Your task to perform on an android device: stop showing notifications on the lock screen Image 0: 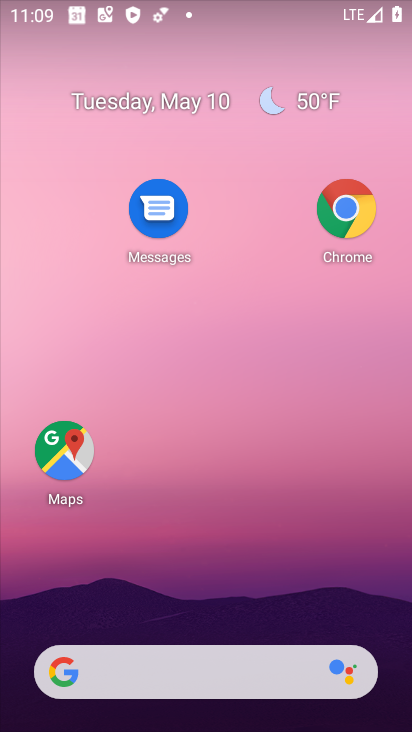
Step 0: drag from (219, 633) to (178, 55)
Your task to perform on an android device: stop showing notifications on the lock screen Image 1: 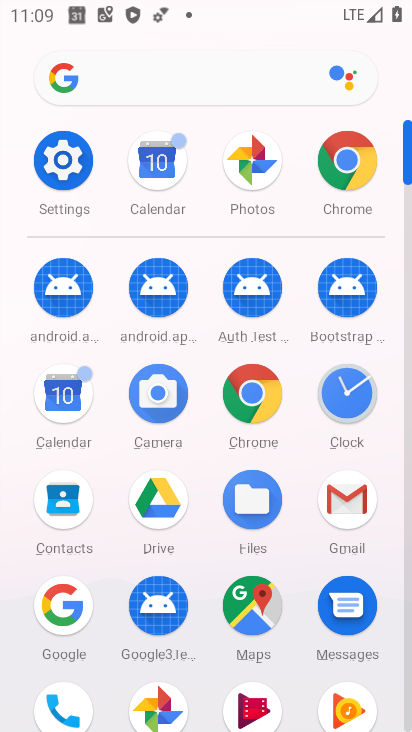
Step 1: click (69, 164)
Your task to perform on an android device: stop showing notifications on the lock screen Image 2: 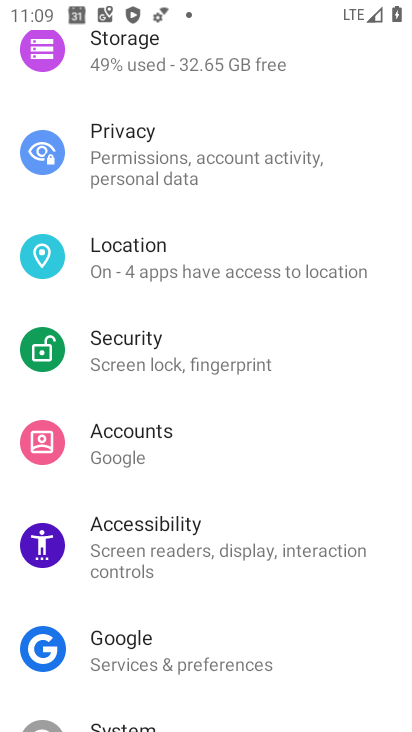
Step 2: drag from (145, 176) to (179, 719)
Your task to perform on an android device: stop showing notifications on the lock screen Image 3: 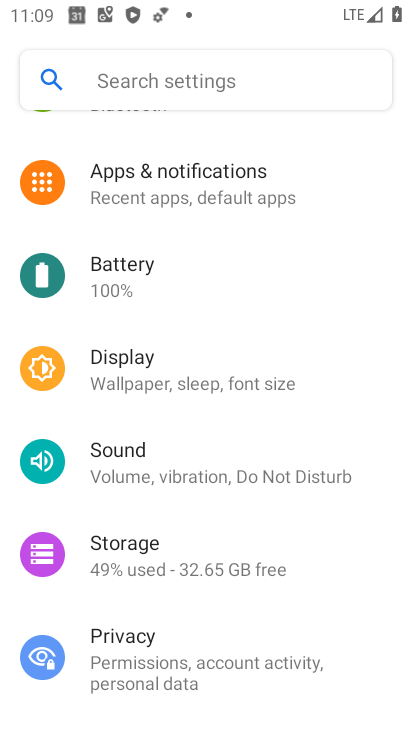
Step 3: click (208, 166)
Your task to perform on an android device: stop showing notifications on the lock screen Image 4: 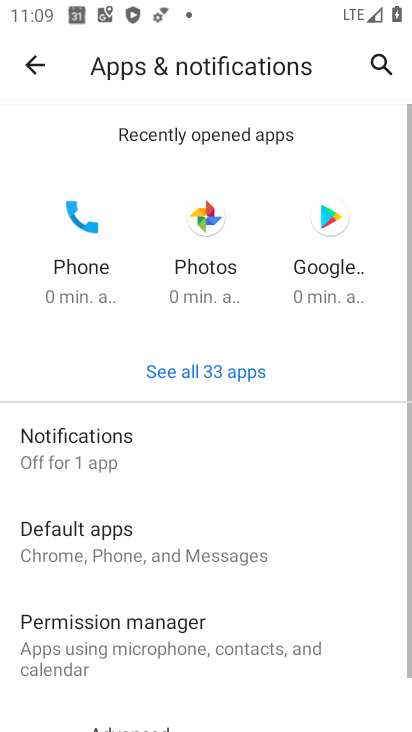
Step 4: click (191, 452)
Your task to perform on an android device: stop showing notifications on the lock screen Image 5: 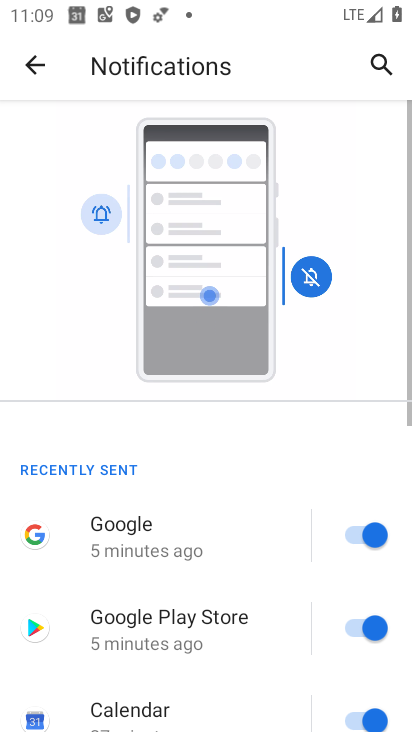
Step 5: drag from (229, 621) to (269, 110)
Your task to perform on an android device: stop showing notifications on the lock screen Image 6: 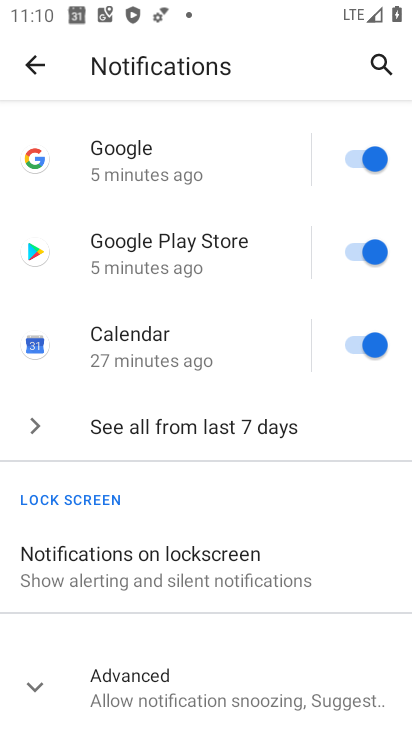
Step 6: click (199, 552)
Your task to perform on an android device: stop showing notifications on the lock screen Image 7: 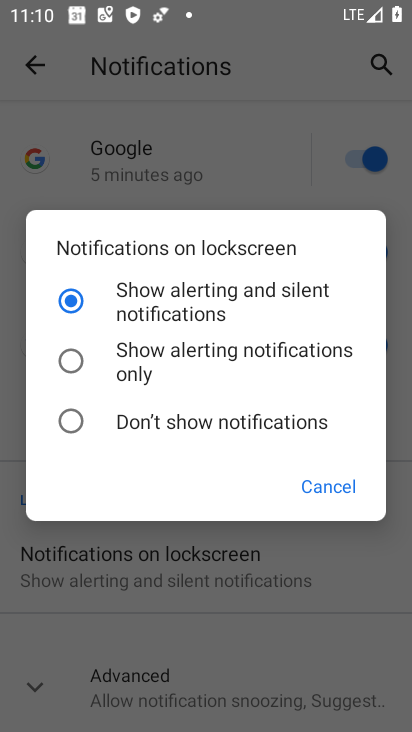
Step 7: click (185, 429)
Your task to perform on an android device: stop showing notifications on the lock screen Image 8: 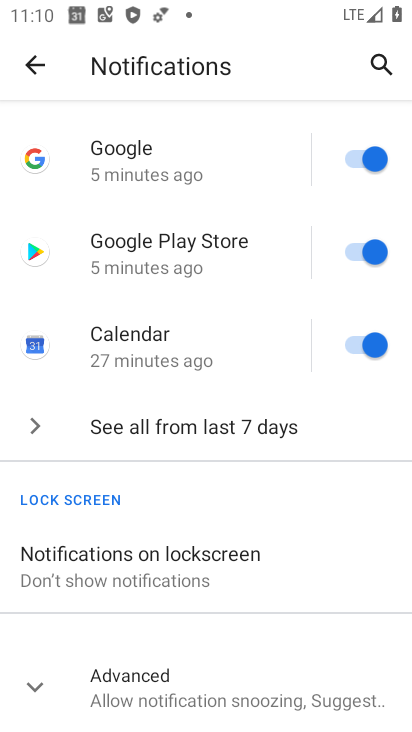
Step 8: task complete